Your task to perform on an android device: Go to Wikipedia Image 0: 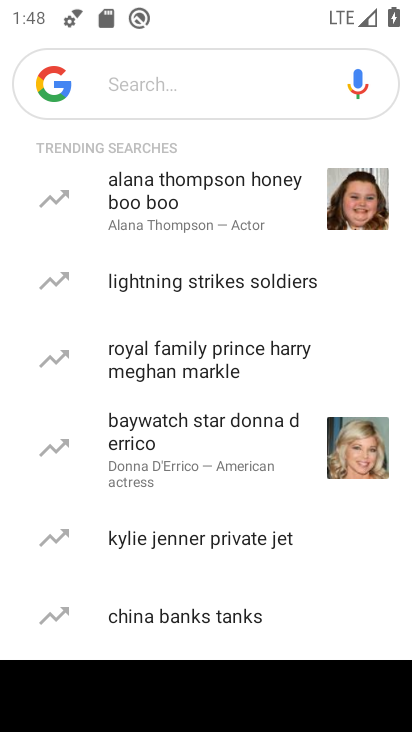
Step 0: press home button
Your task to perform on an android device: Go to Wikipedia Image 1: 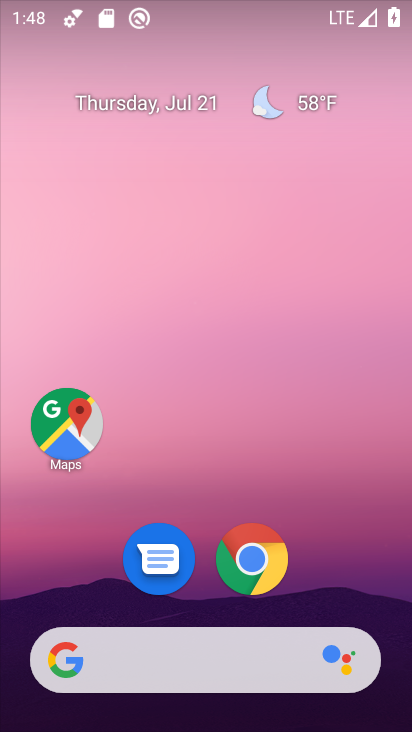
Step 1: drag from (348, 536) to (377, 84)
Your task to perform on an android device: Go to Wikipedia Image 2: 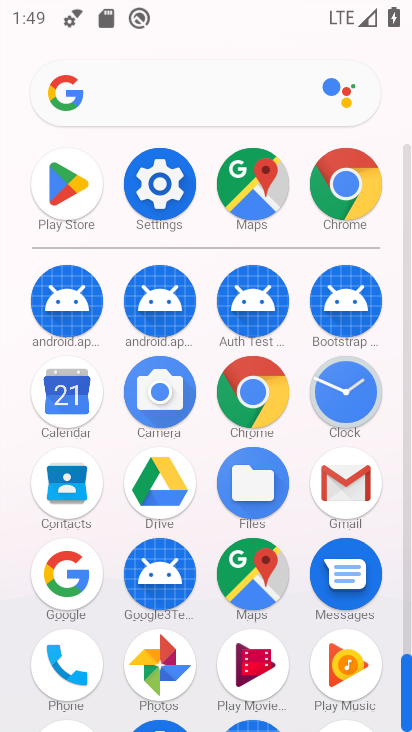
Step 2: click (263, 408)
Your task to perform on an android device: Go to Wikipedia Image 3: 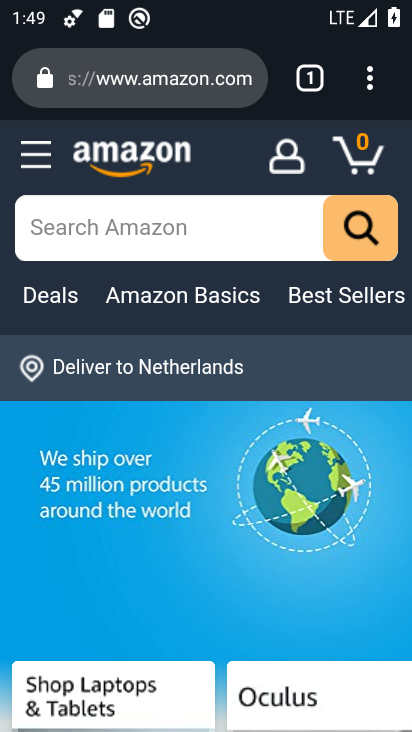
Step 3: click (211, 87)
Your task to perform on an android device: Go to Wikipedia Image 4: 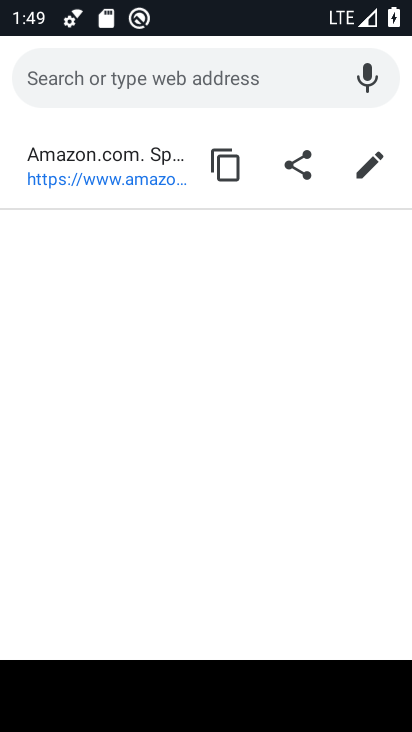
Step 4: type "wikipedia"
Your task to perform on an android device: Go to Wikipedia Image 5: 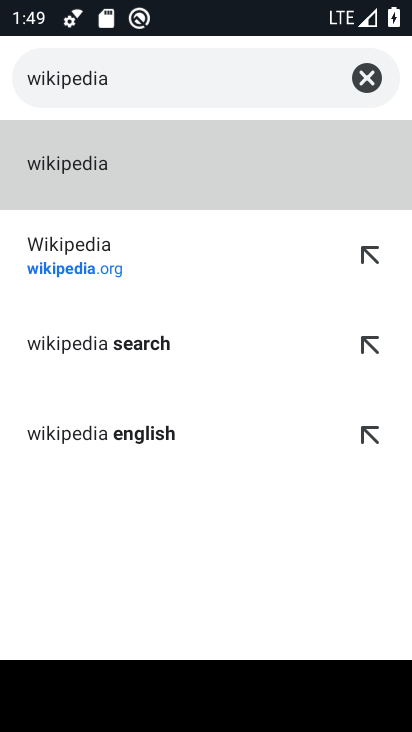
Step 5: click (177, 161)
Your task to perform on an android device: Go to Wikipedia Image 6: 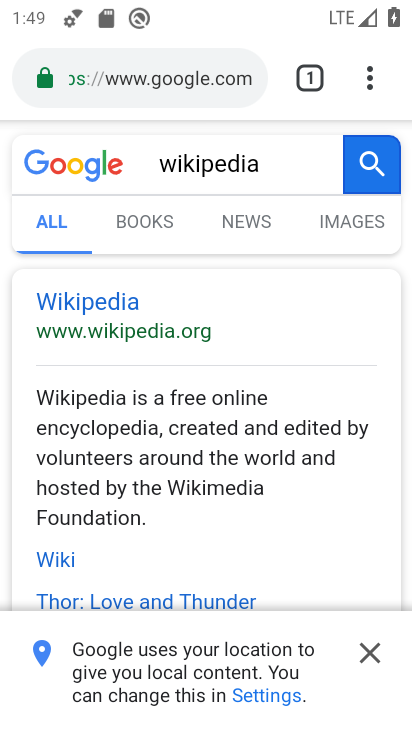
Step 6: task complete